Your task to perform on an android device: Do I have any events this weekend? Image 0: 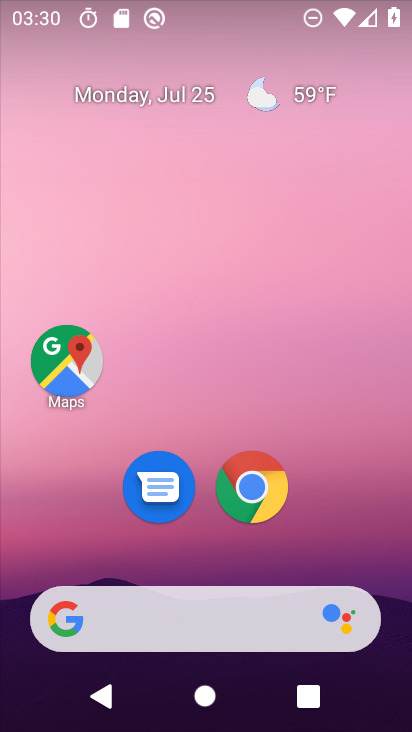
Step 0: drag from (139, 536) to (33, 5)
Your task to perform on an android device: Do I have any events this weekend? Image 1: 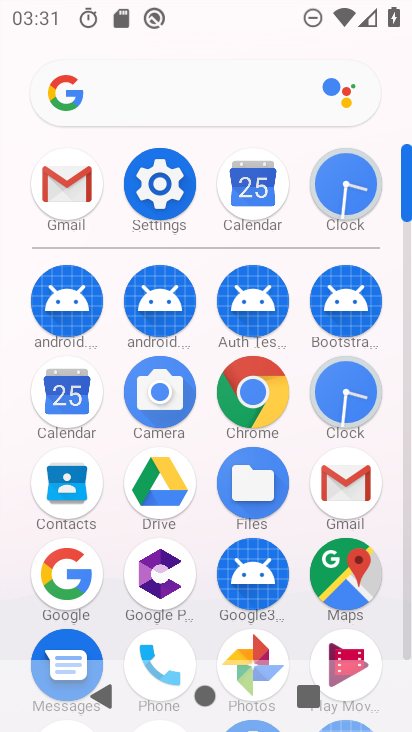
Step 1: click (64, 408)
Your task to perform on an android device: Do I have any events this weekend? Image 2: 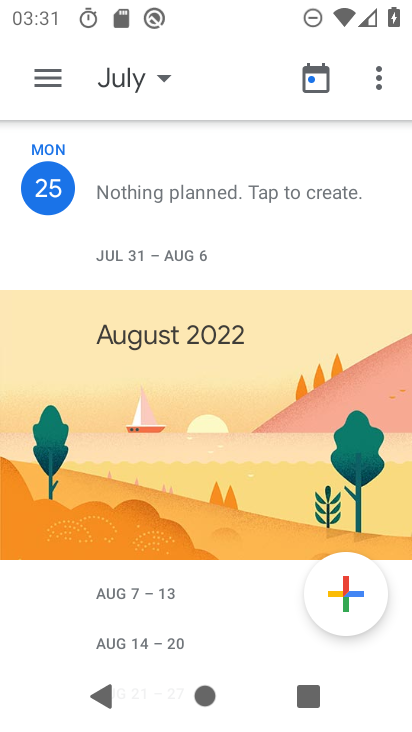
Step 2: click (158, 77)
Your task to perform on an android device: Do I have any events this weekend? Image 3: 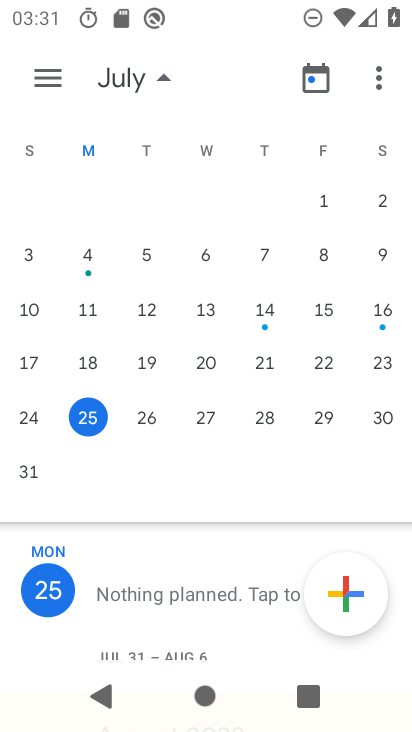
Step 3: click (376, 407)
Your task to perform on an android device: Do I have any events this weekend? Image 4: 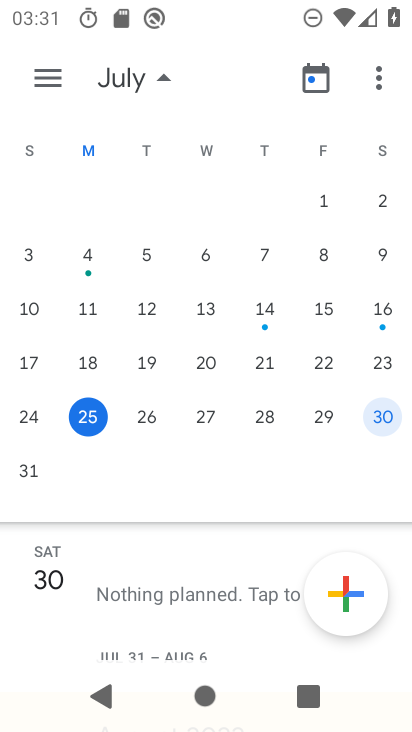
Step 4: task complete